Your task to perform on an android device: show emergency info Image 0: 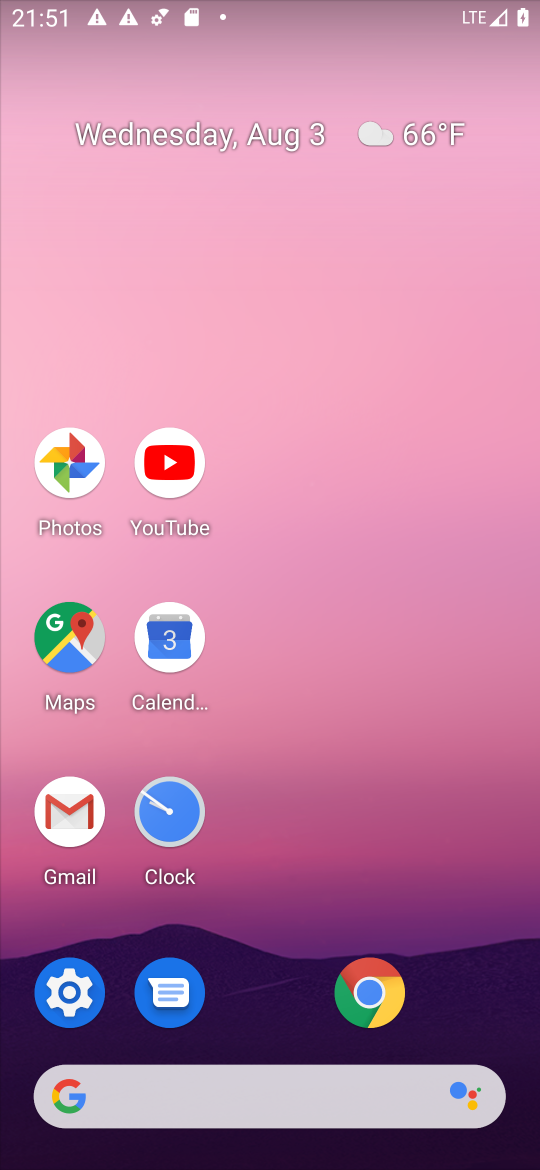
Step 0: click (74, 993)
Your task to perform on an android device: show emergency info Image 1: 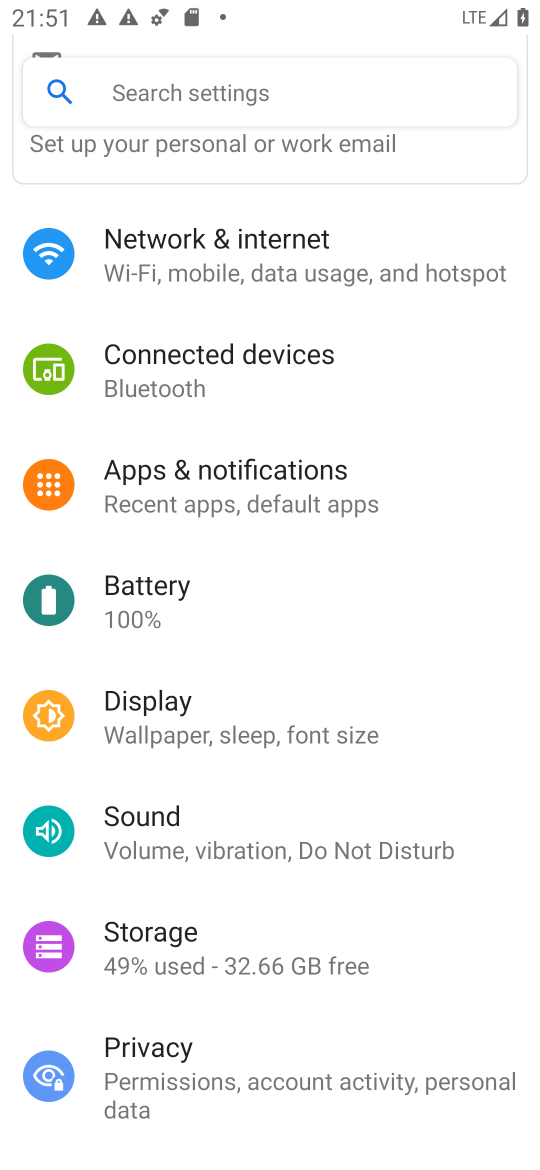
Step 1: drag from (285, 999) to (297, 176)
Your task to perform on an android device: show emergency info Image 2: 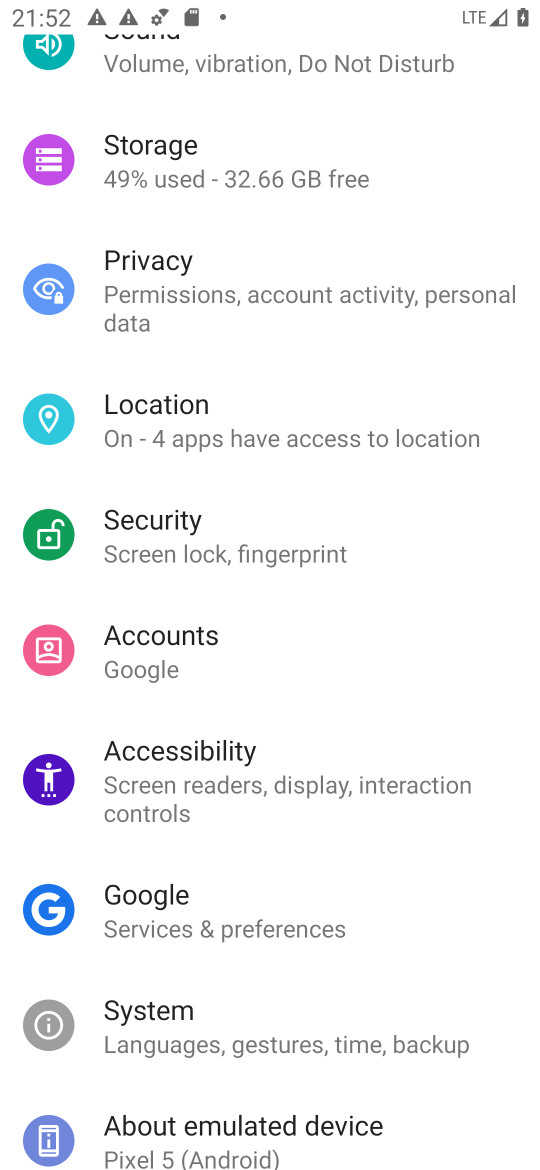
Step 2: click (201, 1125)
Your task to perform on an android device: show emergency info Image 3: 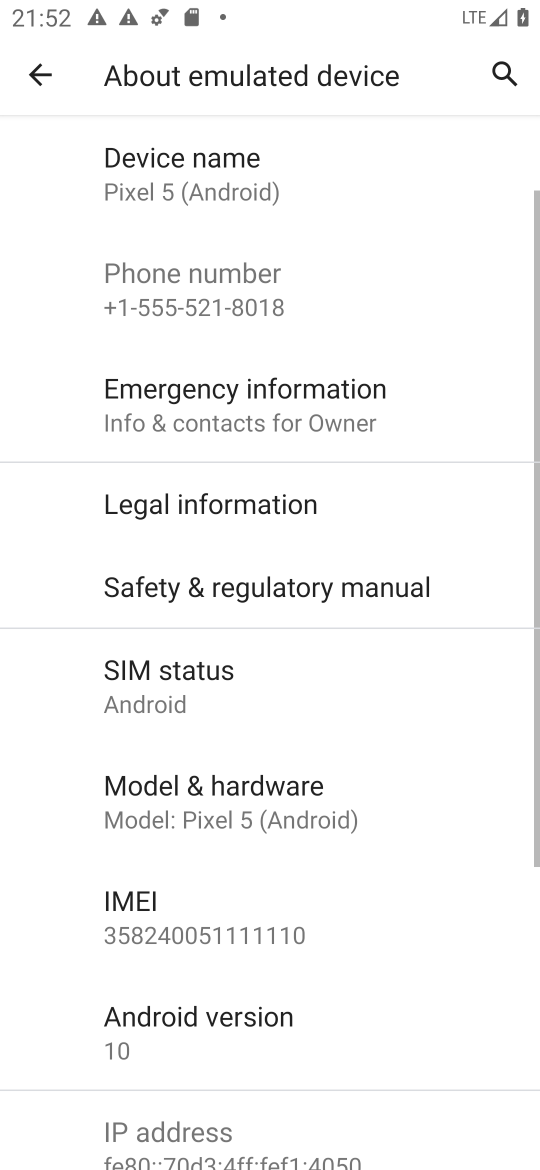
Step 3: click (257, 398)
Your task to perform on an android device: show emergency info Image 4: 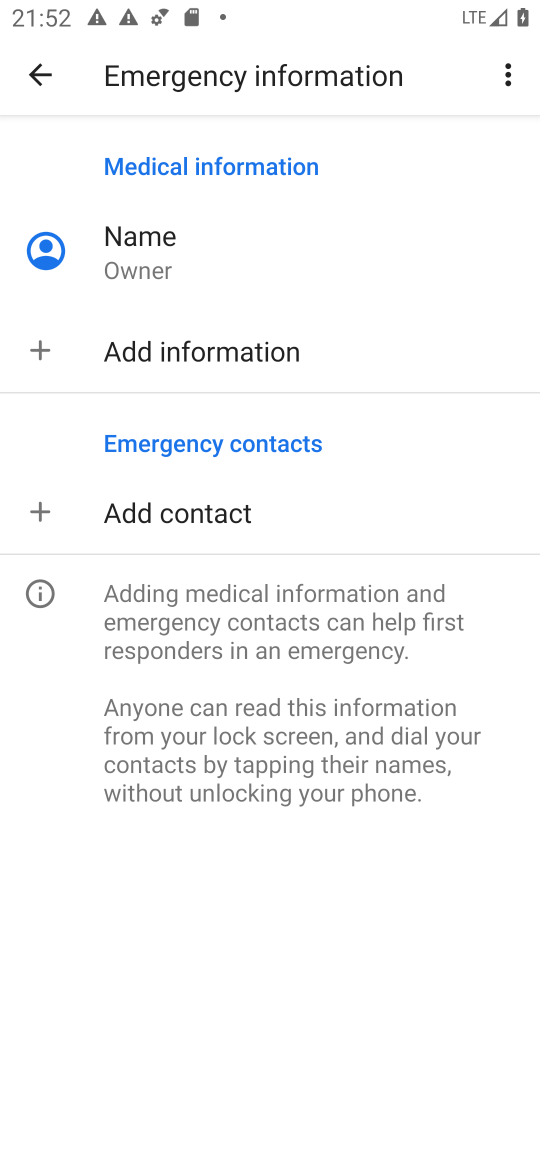
Step 4: task complete